Your task to perform on an android device: What's the weather going to be this weekend? Image 0: 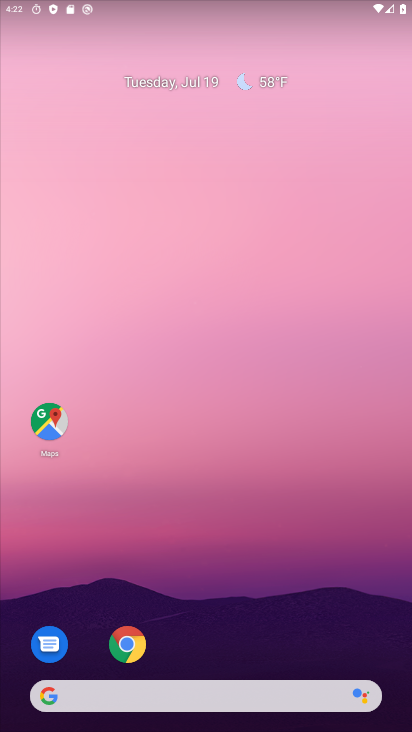
Step 0: drag from (208, 242) to (197, 71)
Your task to perform on an android device: What's the weather going to be this weekend? Image 1: 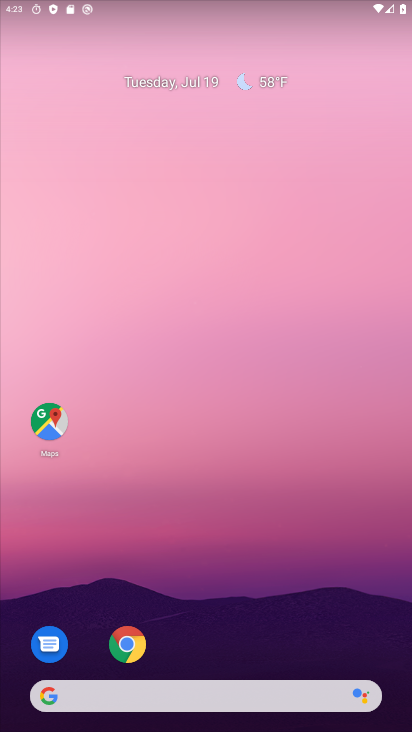
Step 1: drag from (296, 642) to (202, 121)
Your task to perform on an android device: What's the weather going to be this weekend? Image 2: 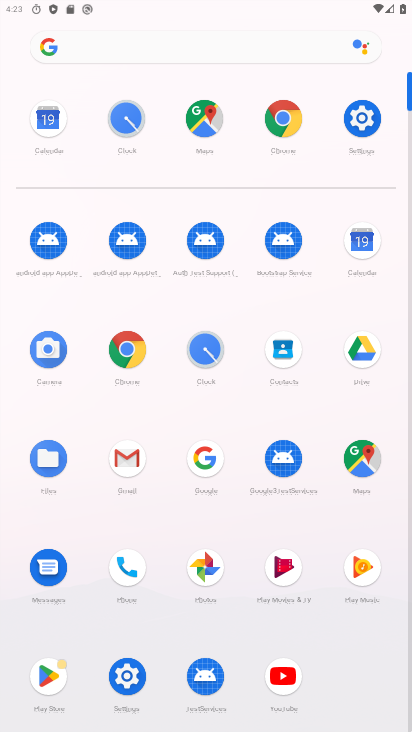
Step 2: press home button
Your task to perform on an android device: What's the weather going to be this weekend? Image 3: 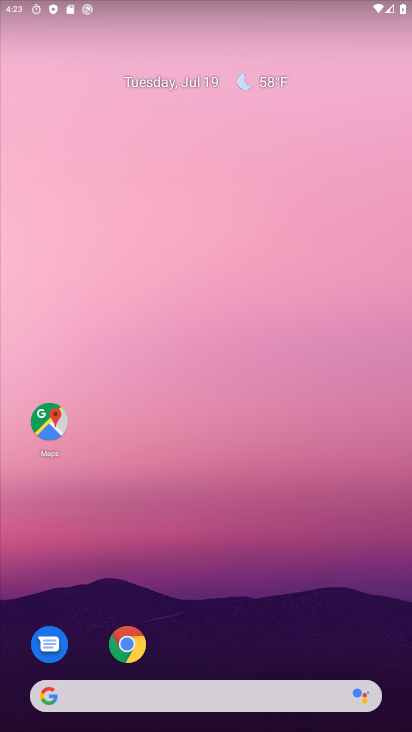
Step 3: drag from (183, 109) to (183, 9)
Your task to perform on an android device: What's the weather going to be this weekend? Image 4: 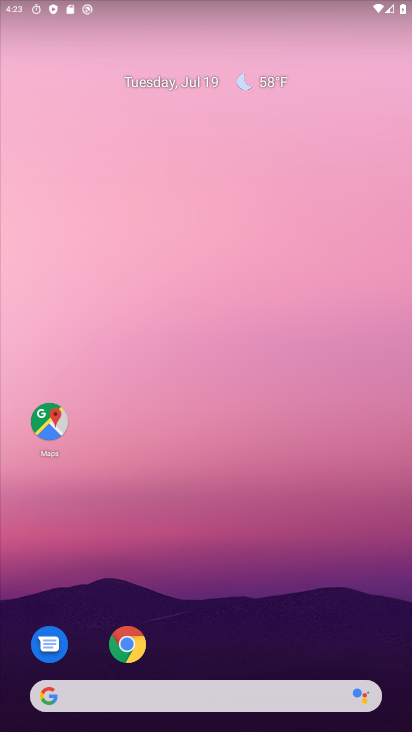
Step 4: drag from (243, 650) to (181, 93)
Your task to perform on an android device: What's the weather going to be this weekend? Image 5: 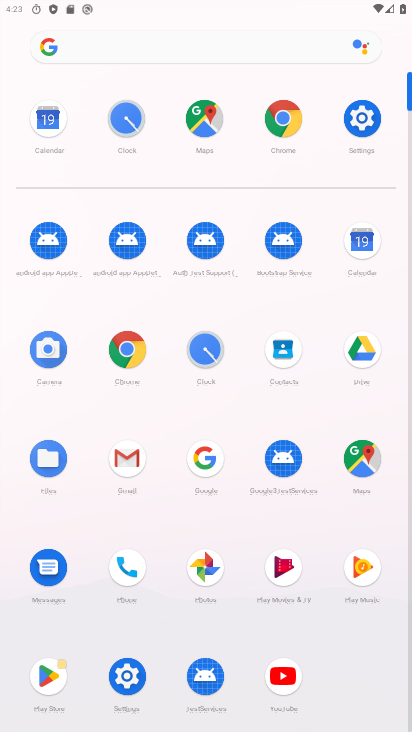
Step 5: click (284, 120)
Your task to perform on an android device: What's the weather going to be this weekend? Image 6: 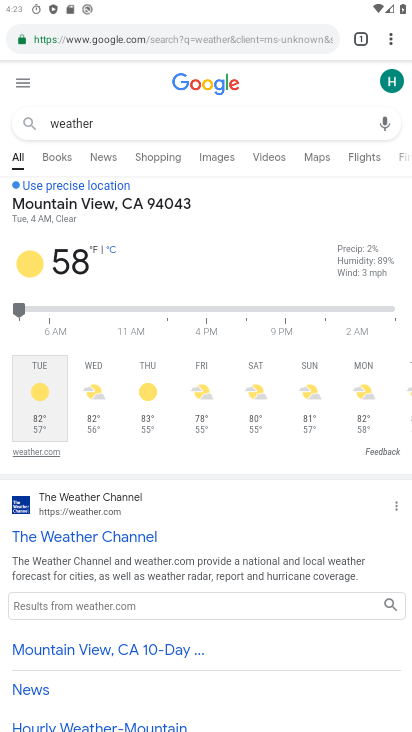
Step 6: click (245, 390)
Your task to perform on an android device: What's the weather going to be this weekend? Image 7: 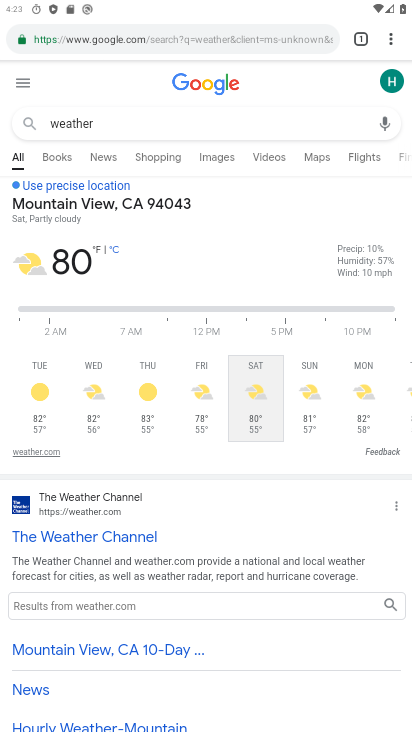
Step 7: task complete